Your task to perform on an android device: toggle show notifications on the lock screen Image 0: 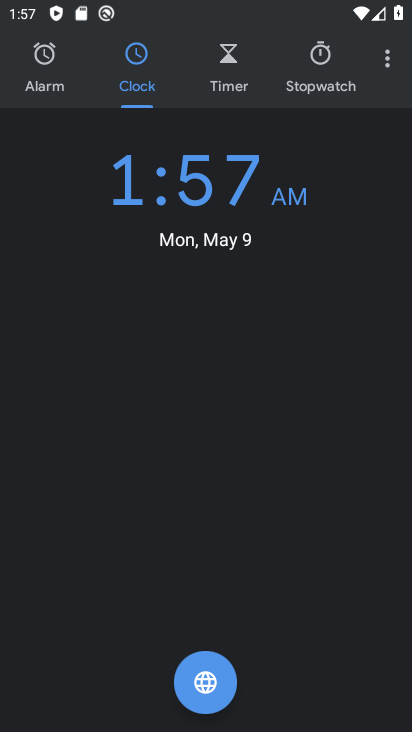
Step 0: press back button
Your task to perform on an android device: toggle show notifications on the lock screen Image 1: 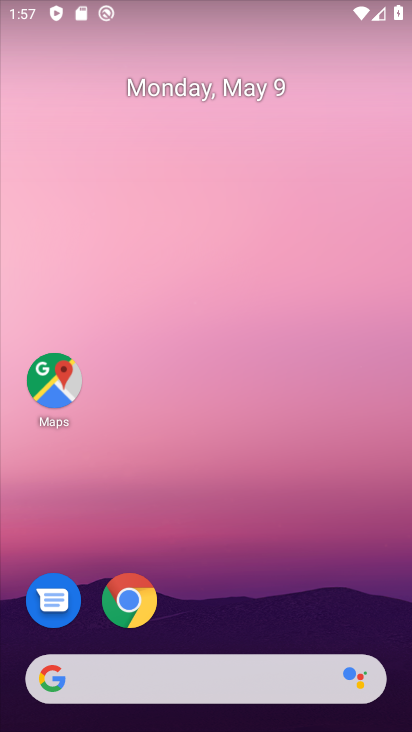
Step 1: drag from (223, 386) to (196, 3)
Your task to perform on an android device: toggle show notifications on the lock screen Image 2: 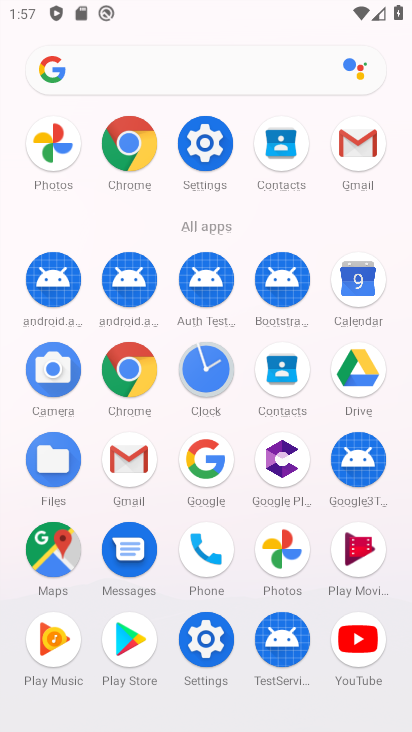
Step 2: click (212, 641)
Your task to perform on an android device: toggle show notifications on the lock screen Image 3: 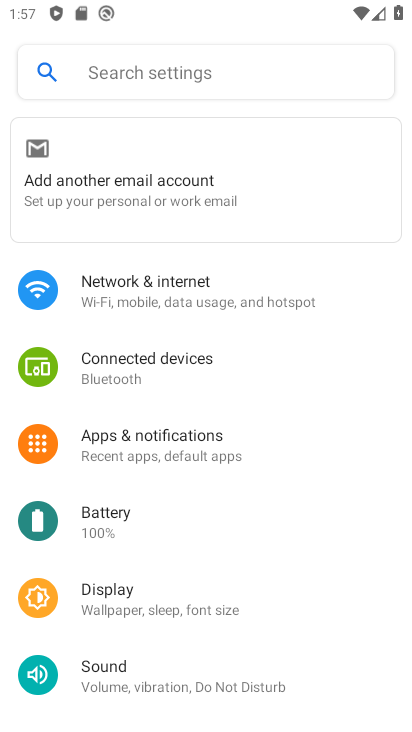
Step 3: drag from (365, 609) to (356, 238)
Your task to perform on an android device: toggle show notifications on the lock screen Image 4: 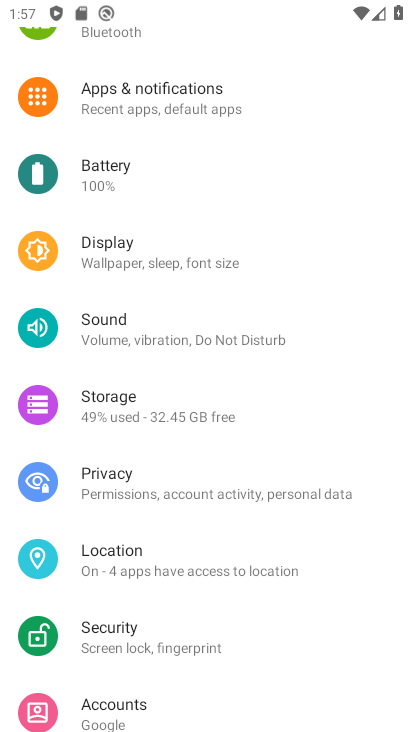
Step 4: drag from (358, 580) to (352, 186)
Your task to perform on an android device: toggle show notifications on the lock screen Image 5: 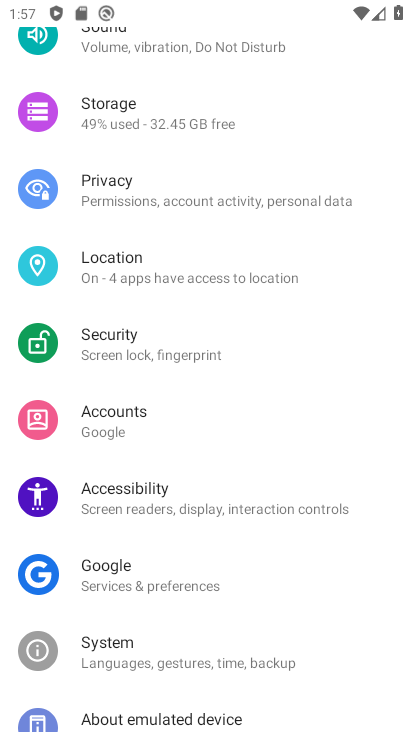
Step 5: drag from (275, 112) to (328, 544)
Your task to perform on an android device: toggle show notifications on the lock screen Image 6: 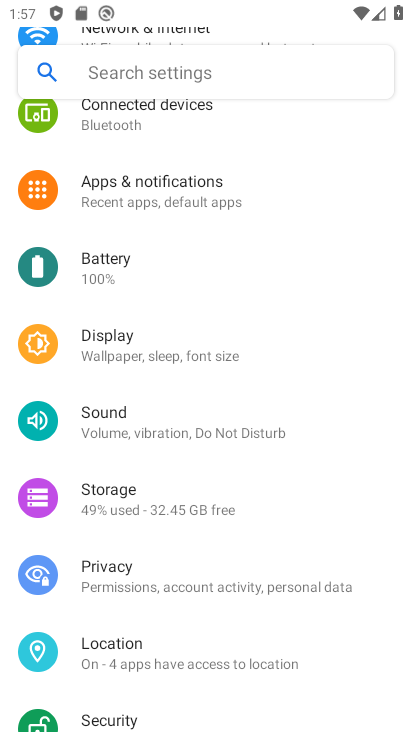
Step 6: click (189, 189)
Your task to perform on an android device: toggle show notifications on the lock screen Image 7: 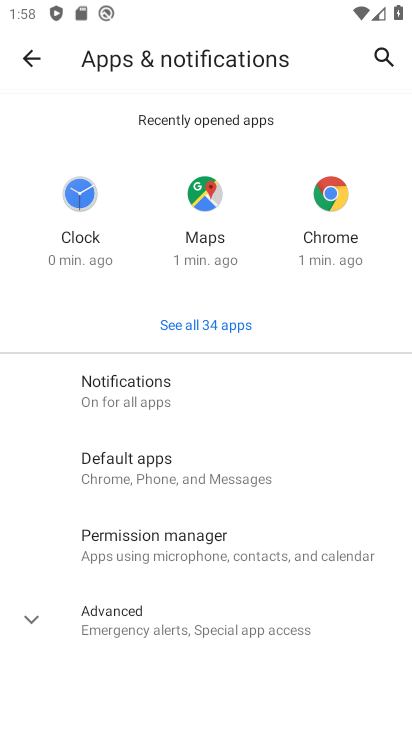
Step 7: click (26, 601)
Your task to perform on an android device: toggle show notifications on the lock screen Image 8: 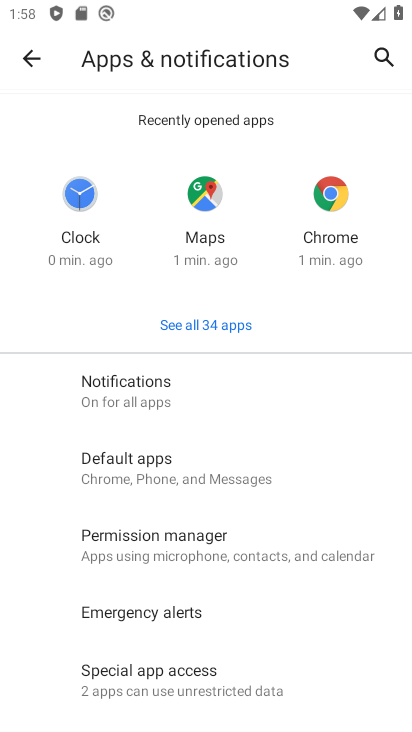
Step 8: click (197, 403)
Your task to perform on an android device: toggle show notifications on the lock screen Image 9: 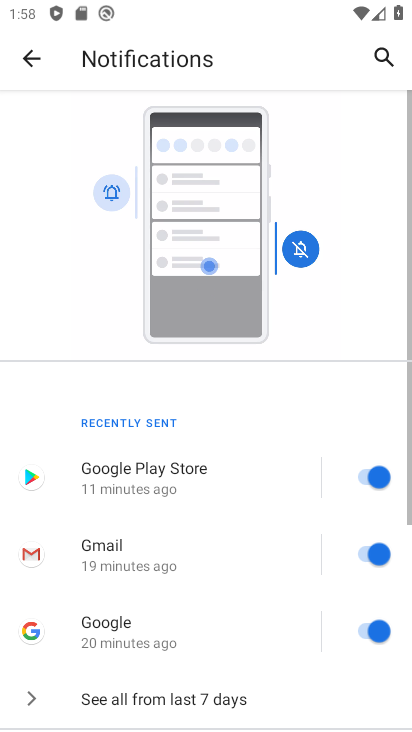
Step 9: drag from (219, 697) to (260, 126)
Your task to perform on an android device: toggle show notifications on the lock screen Image 10: 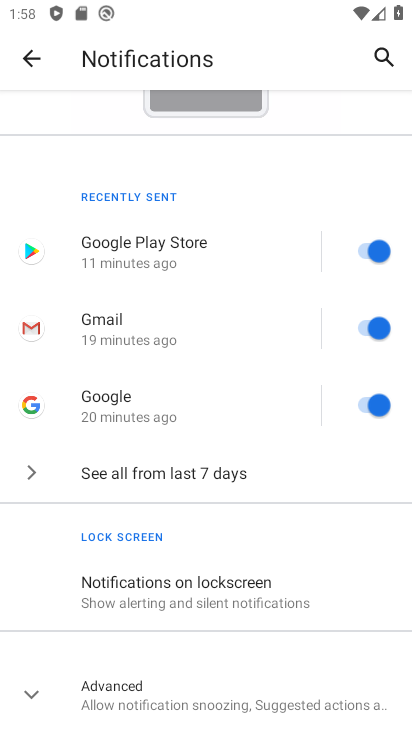
Step 10: click (172, 596)
Your task to perform on an android device: toggle show notifications on the lock screen Image 11: 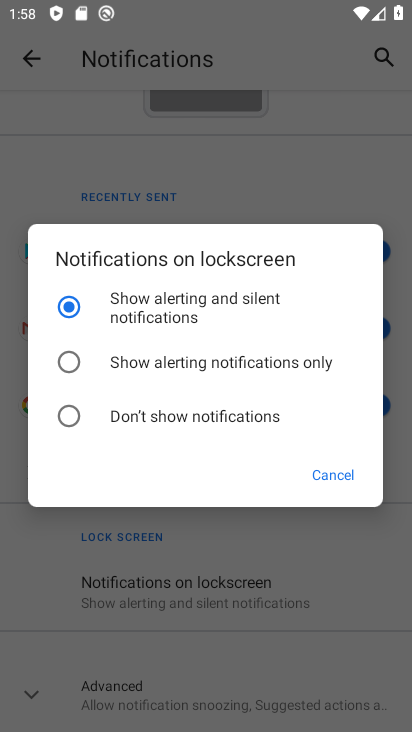
Step 11: click (49, 574)
Your task to perform on an android device: toggle show notifications on the lock screen Image 12: 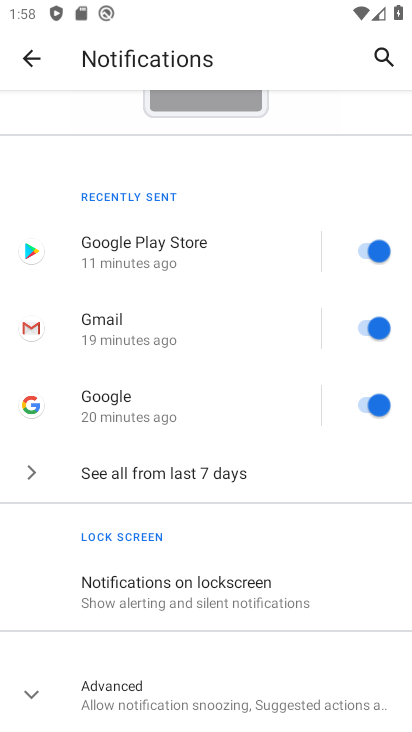
Step 12: click (76, 676)
Your task to perform on an android device: toggle show notifications on the lock screen Image 13: 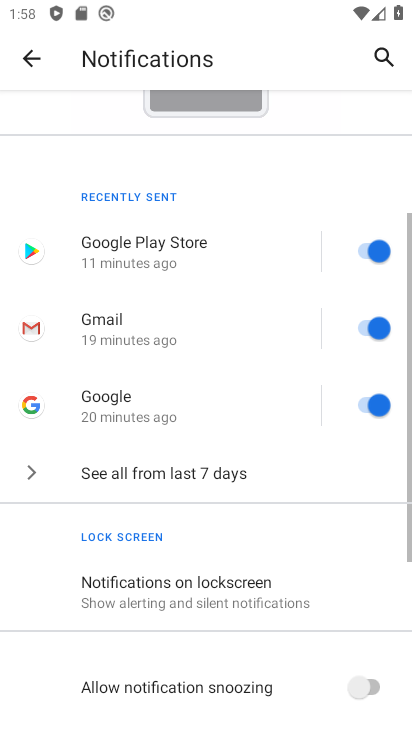
Step 13: drag from (198, 680) to (232, 223)
Your task to perform on an android device: toggle show notifications on the lock screen Image 14: 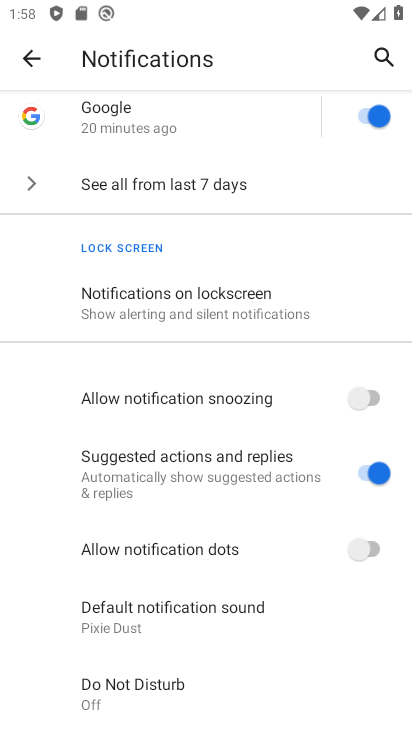
Step 14: click (236, 304)
Your task to perform on an android device: toggle show notifications on the lock screen Image 15: 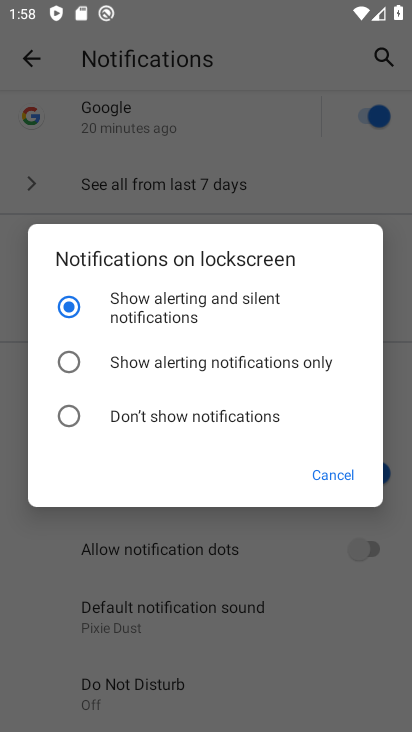
Step 15: click (229, 300)
Your task to perform on an android device: toggle show notifications on the lock screen Image 16: 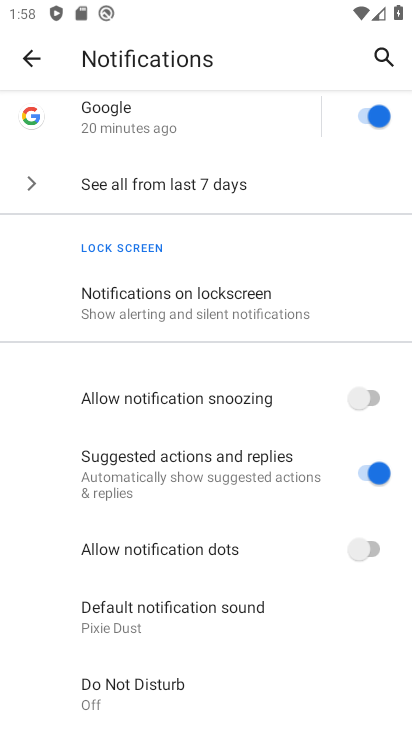
Step 16: task complete